Your task to perform on an android device: open sync settings in chrome Image 0: 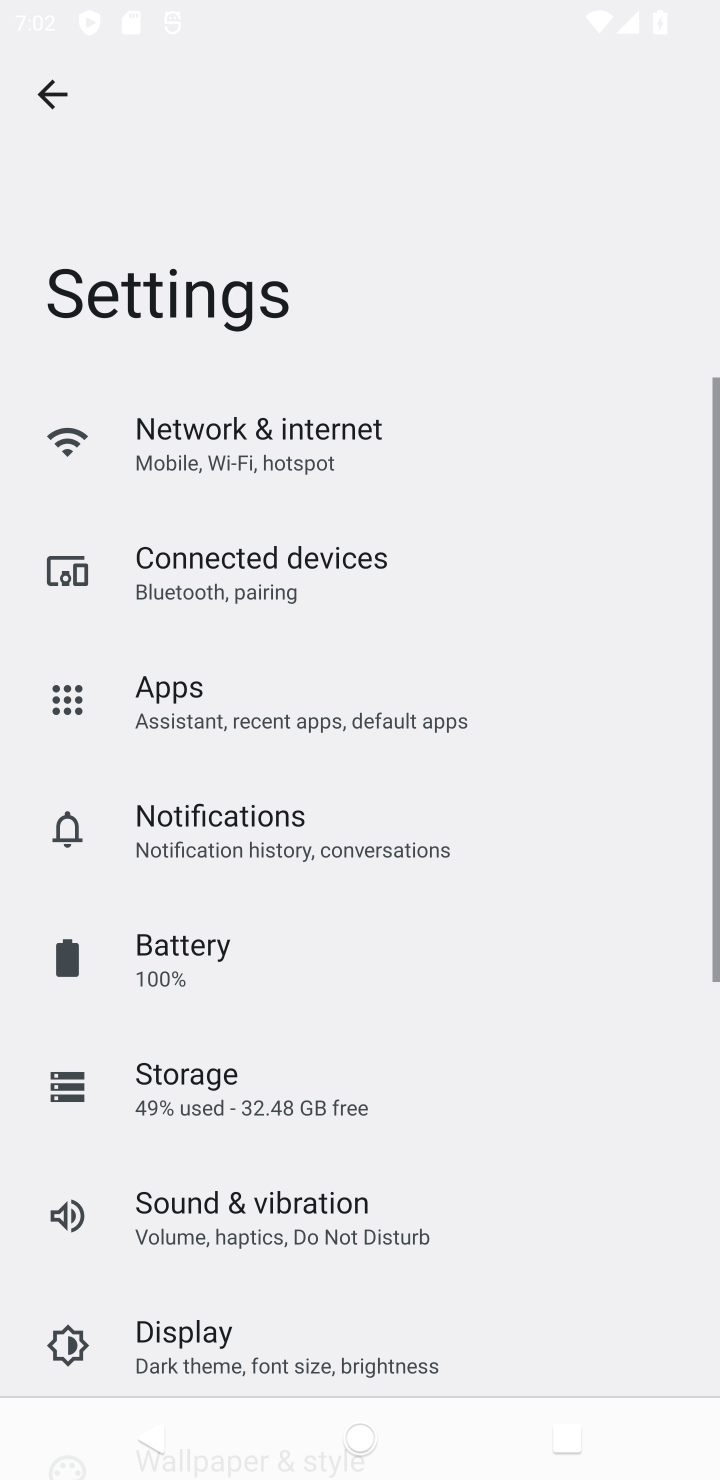
Step 0: press home button
Your task to perform on an android device: open sync settings in chrome Image 1: 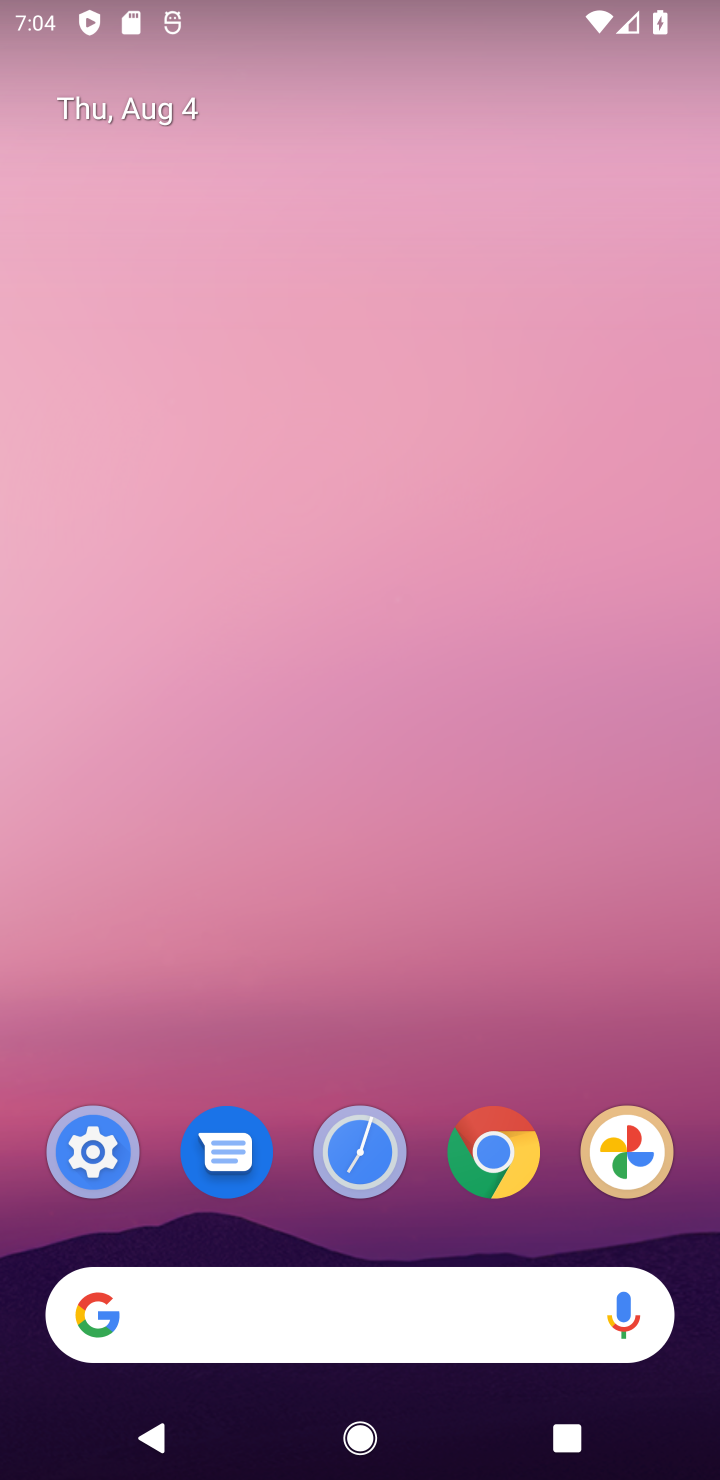
Step 1: click (504, 1169)
Your task to perform on an android device: open sync settings in chrome Image 2: 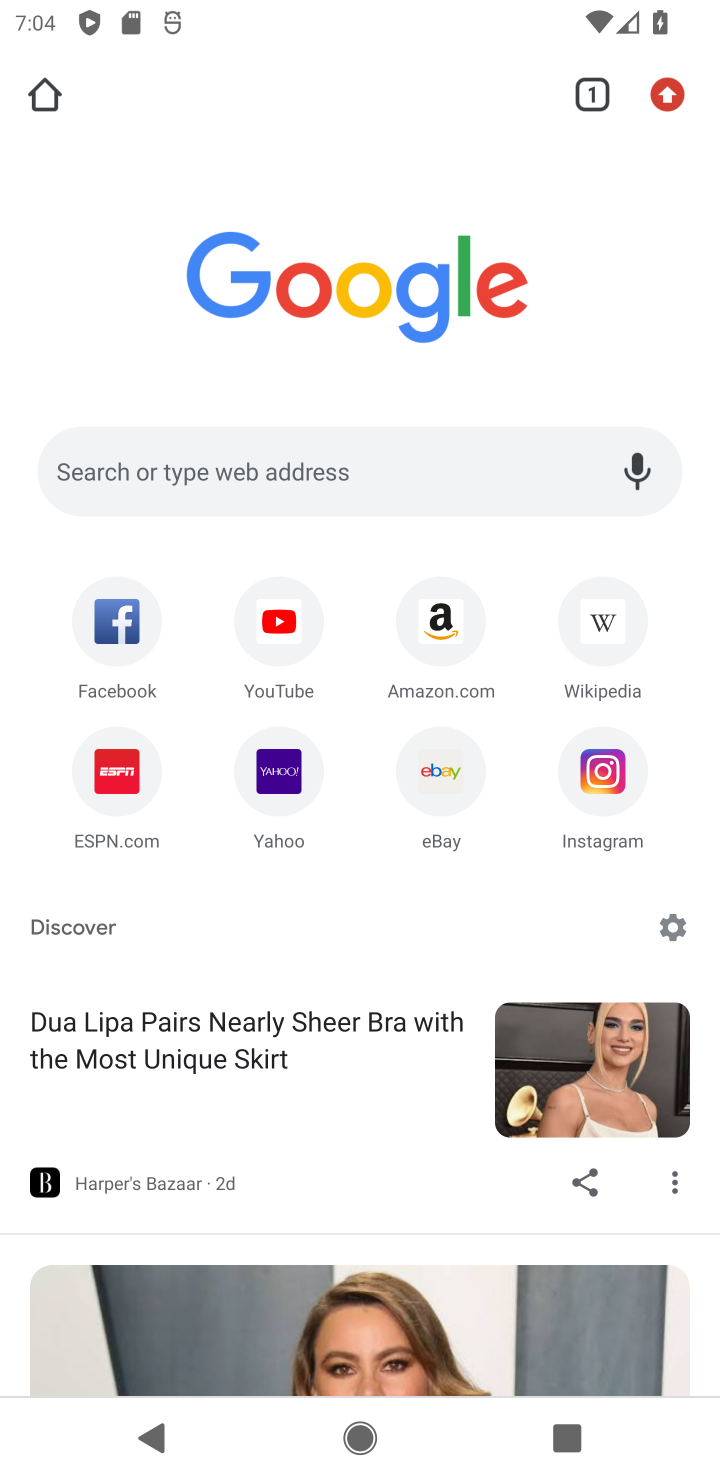
Step 2: click (665, 83)
Your task to perform on an android device: open sync settings in chrome Image 3: 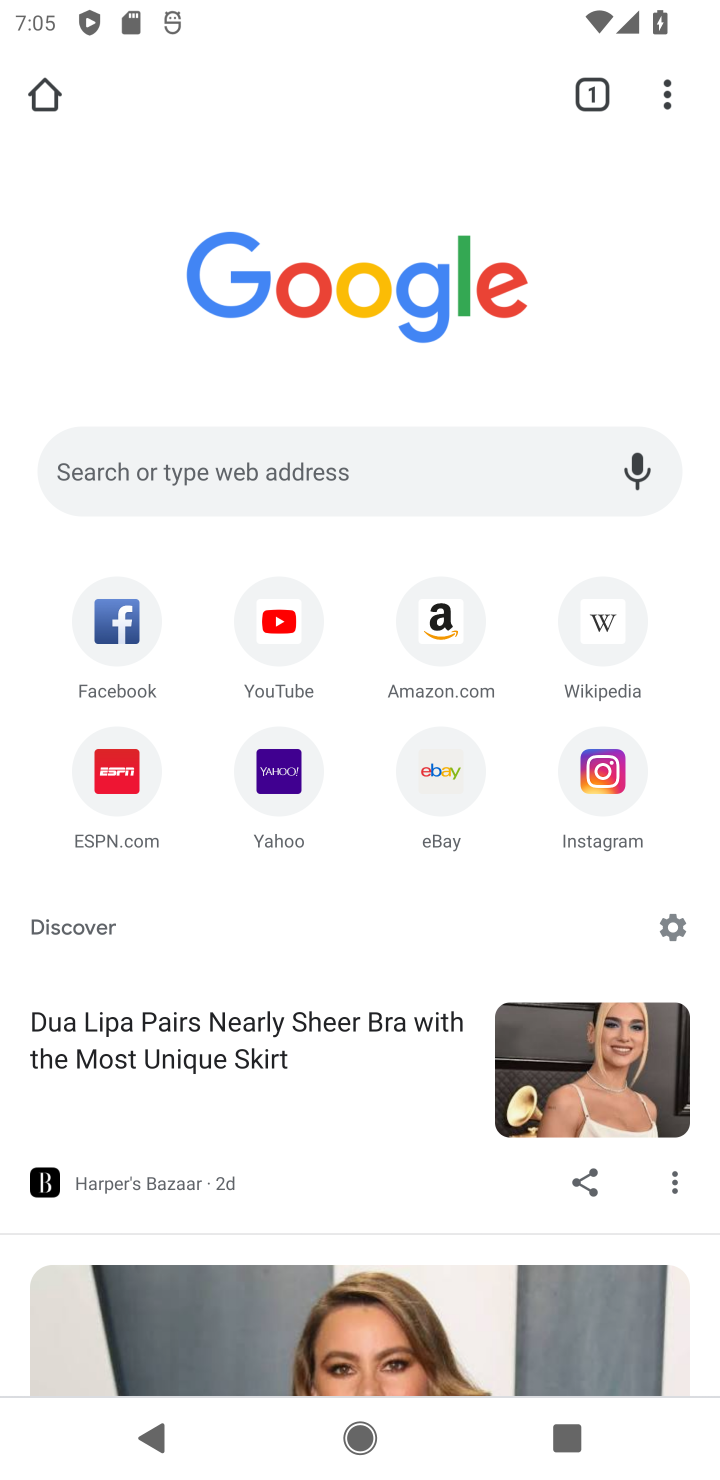
Step 3: task complete